Your task to perform on an android device: Toggle the flashlight Image 0: 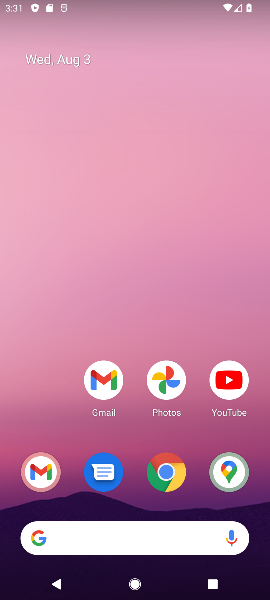
Step 0: drag from (168, 429) to (82, 23)
Your task to perform on an android device: Toggle the flashlight Image 1: 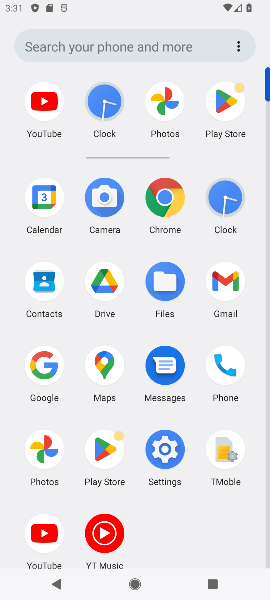
Step 1: task complete